Your task to perform on an android device: turn off priority inbox in the gmail app Image 0: 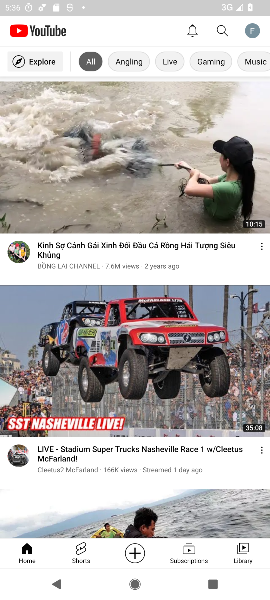
Step 0: press home button
Your task to perform on an android device: turn off priority inbox in the gmail app Image 1: 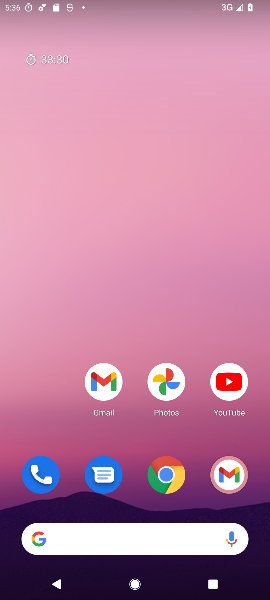
Step 1: drag from (66, 447) to (73, 157)
Your task to perform on an android device: turn off priority inbox in the gmail app Image 2: 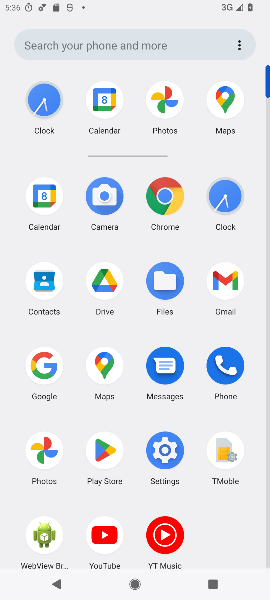
Step 2: click (226, 289)
Your task to perform on an android device: turn off priority inbox in the gmail app Image 3: 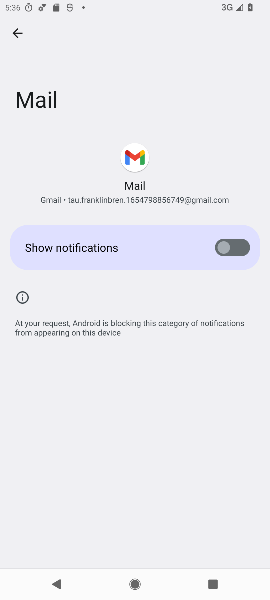
Step 3: task complete